Your task to perform on an android device: turn on translation in the chrome app Image 0: 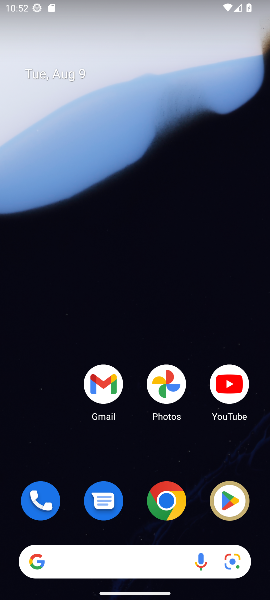
Step 0: click (163, 499)
Your task to perform on an android device: turn on translation in the chrome app Image 1: 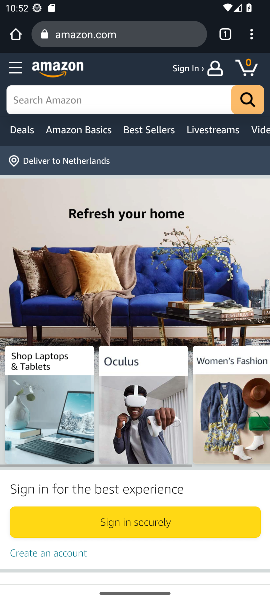
Step 1: click (253, 40)
Your task to perform on an android device: turn on translation in the chrome app Image 2: 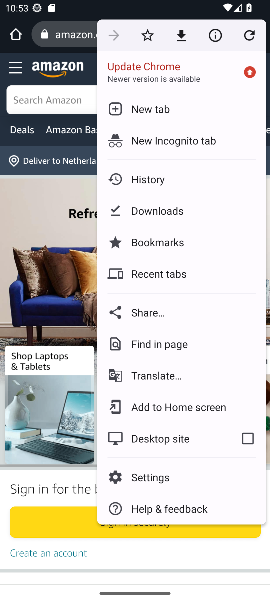
Step 2: click (154, 480)
Your task to perform on an android device: turn on translation in the chrome app Image 3: 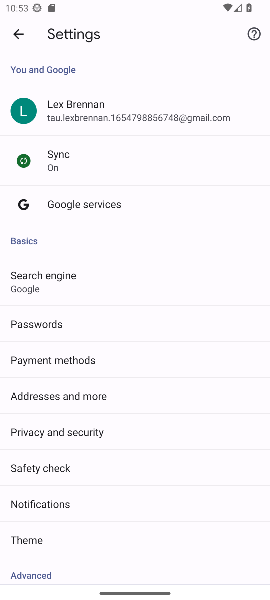
Step 3: drag from (103, 518) to (149, 289)
Your task to perform on an android device: turn on translation in the chrome app Image 4: 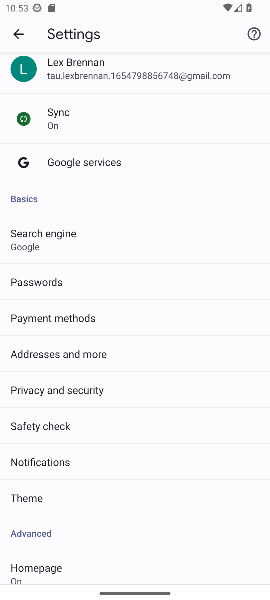
Step 4: drag from (101, 478) to (117, 292)
Your task to perform on an android device: turn on translation in the chrome app Image 5: 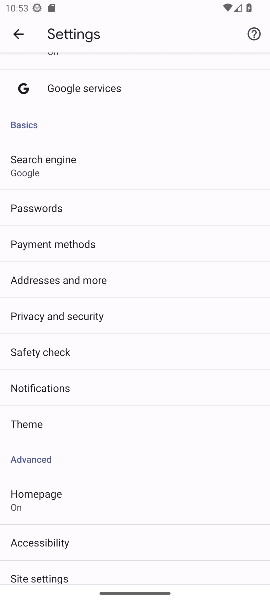
Step 5: drag from (100, 509) to (162, 265)
Your task to perform on an android device: turn on translation in the chrome app Image 6: 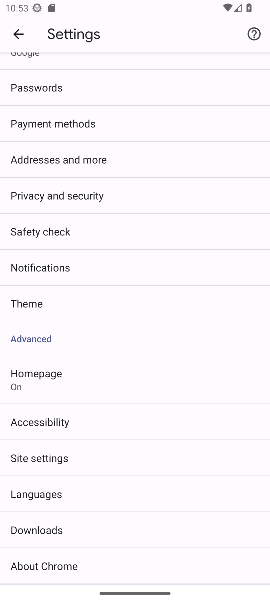
Step 6: click (61, 489)
Your task to perform on an android device: turn on translation in the chrome app Image 7: 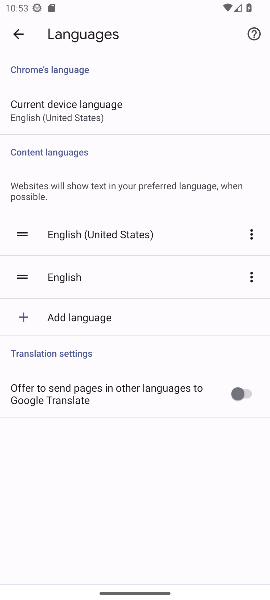
Step 7: click (251, 391)
Your task to perform on an android device: turn on translation in the chrome app Image 8: 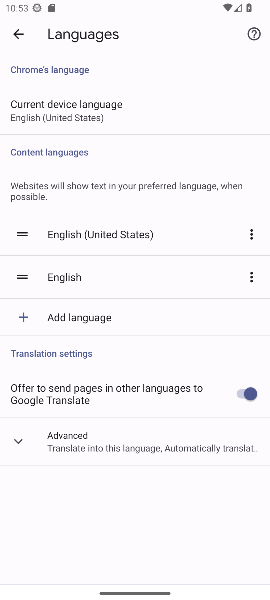
Step 8: task complete